Your task to perform on an android device: refresh tabs in the chrome app Image 0: 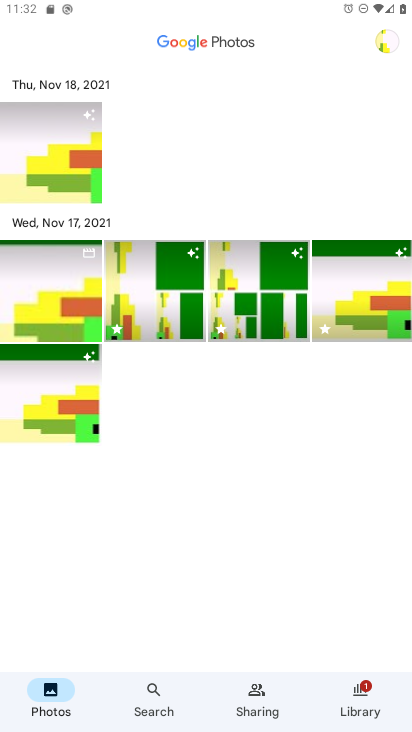
Step 0: press home button
Your task to perform on an android device: refresh tabs in the chrome app Image 1: 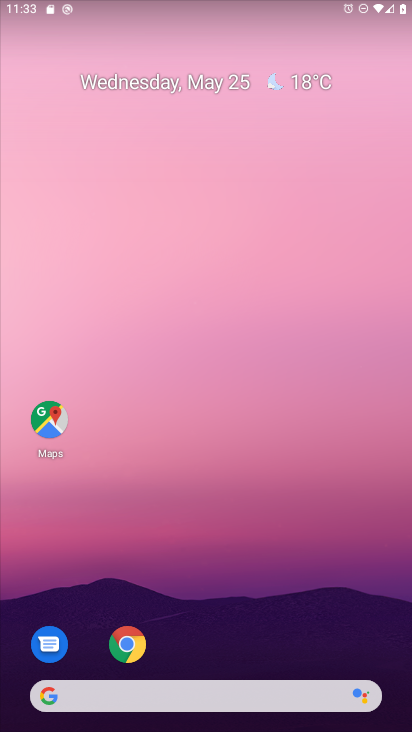
Step 1: click (122, 640)
Your task to perform on an android device: refresh tabs in the chrome app Image 2: 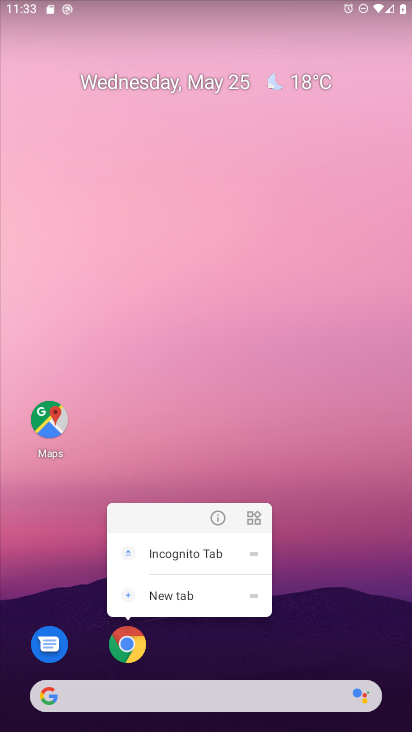
Step 2: click (122, 640)
Your task to perform on an android device: refresh tabs in the chrome app Image 3: 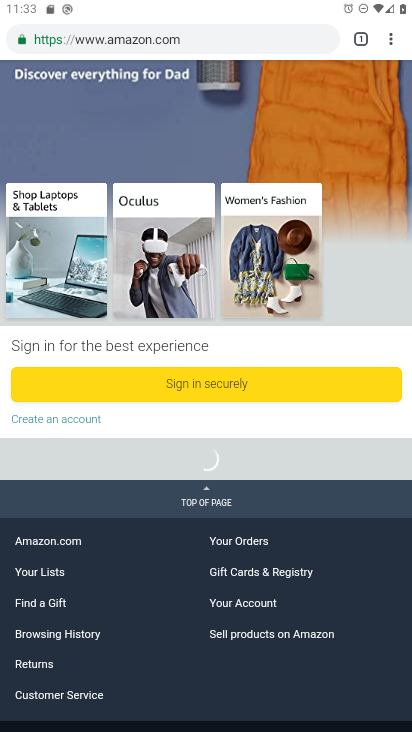
Step 3: click (391, 34)
Your task to perform on an android device: refresh tabs in the chrome app Image 4: 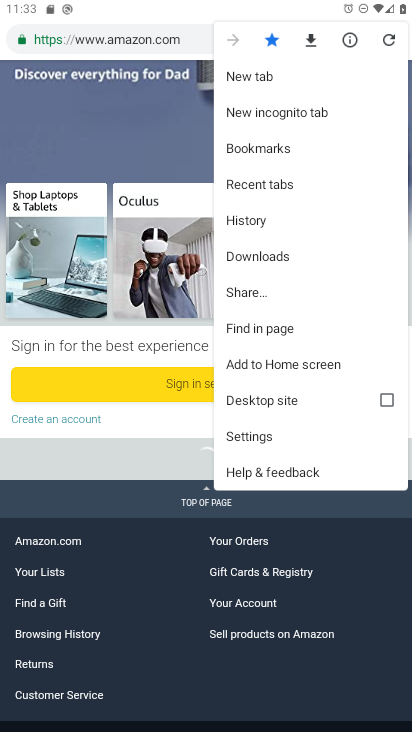
Step 4: click (391, 34)
Your task to perform on an android device: refresh tabs in the chrome app Image 5: 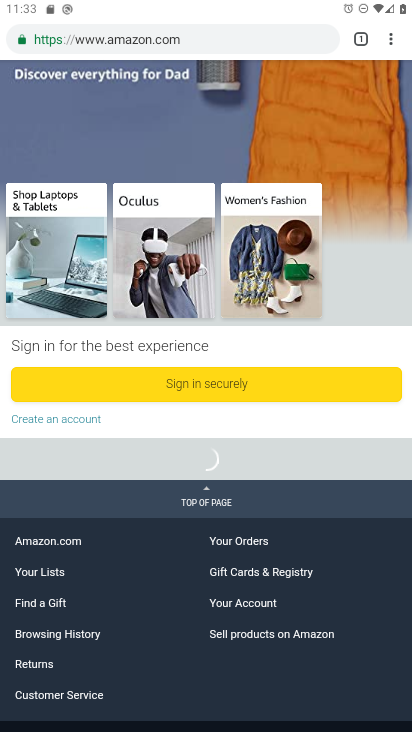
Step 5: task complete